Your task to perform on an android device: Empty the shopping cart on ebay.com. Search for jbl charge 4 on ebay.com, select the first entry, and add it to the cart. Image 0: 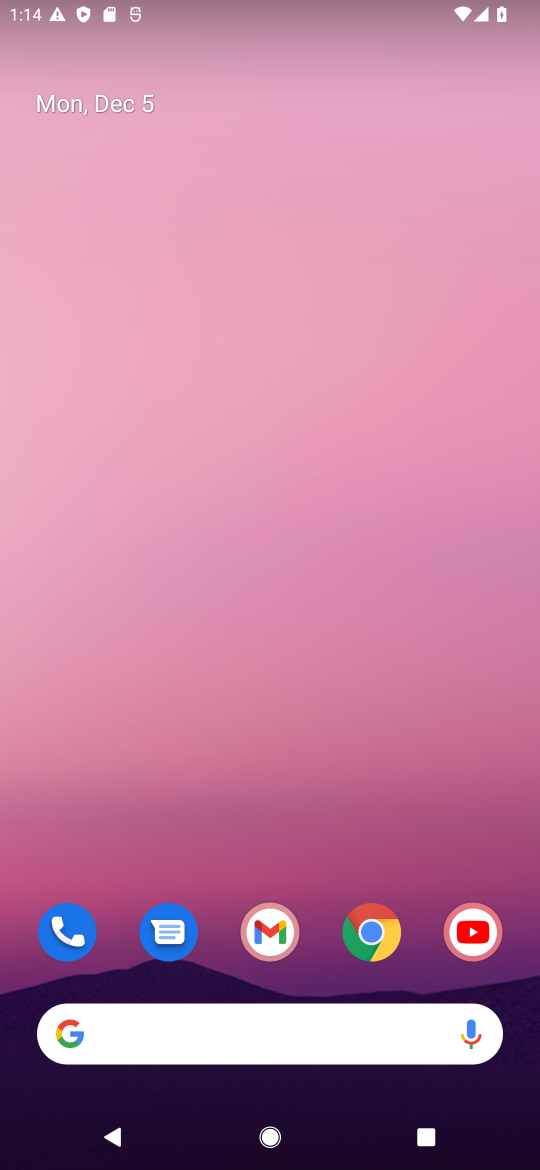
Step 0: task complete